Your task to perform on an android device: What's the weather? Image 0: 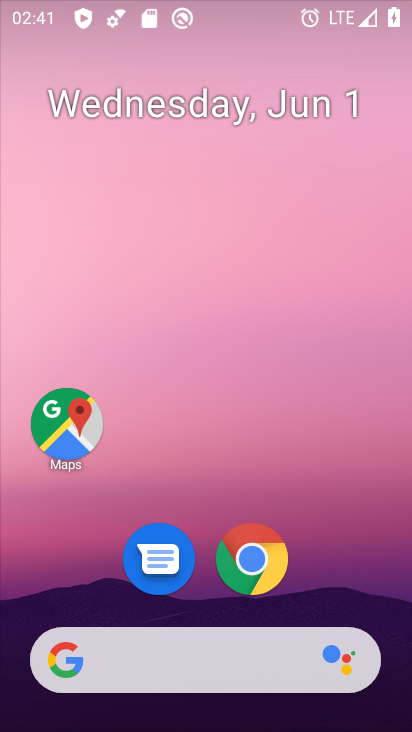
Step 0: press home button
Your task to perform on an android device: What's the weather? Image 1: 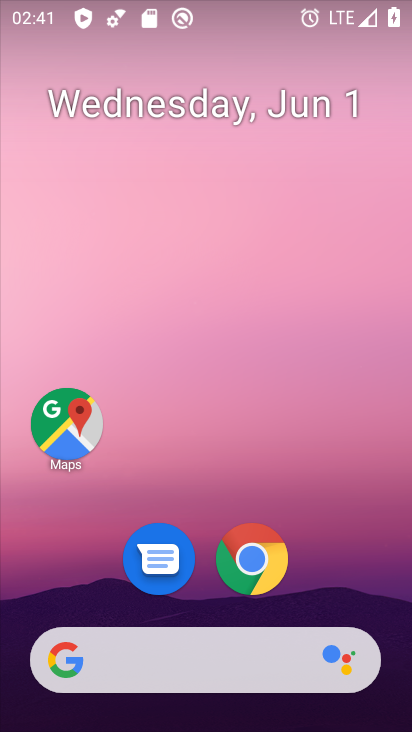
Step 1: click (59, 669)
Your task to perform on an android device: What's the weather? Image 2: 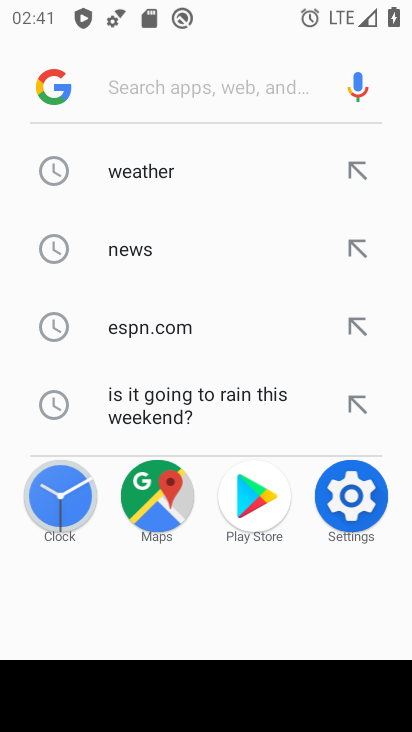
Step 2: click (139, 170)
Your task to perform on an android device: What's the weather? Image 3: 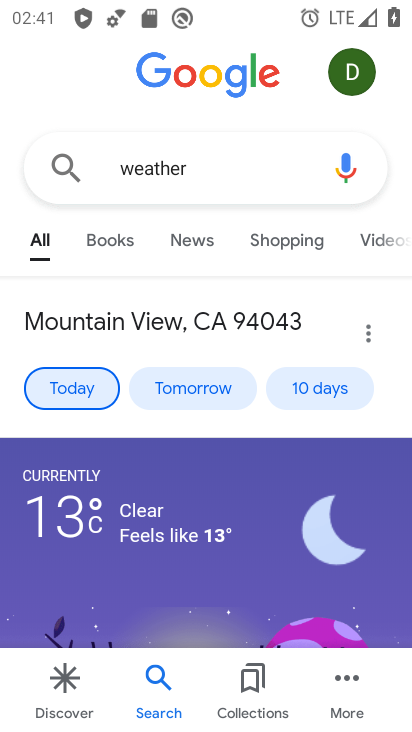
Step 3: task complete